Your task to perform on an android device: uninstall "Spotify" Image 0: 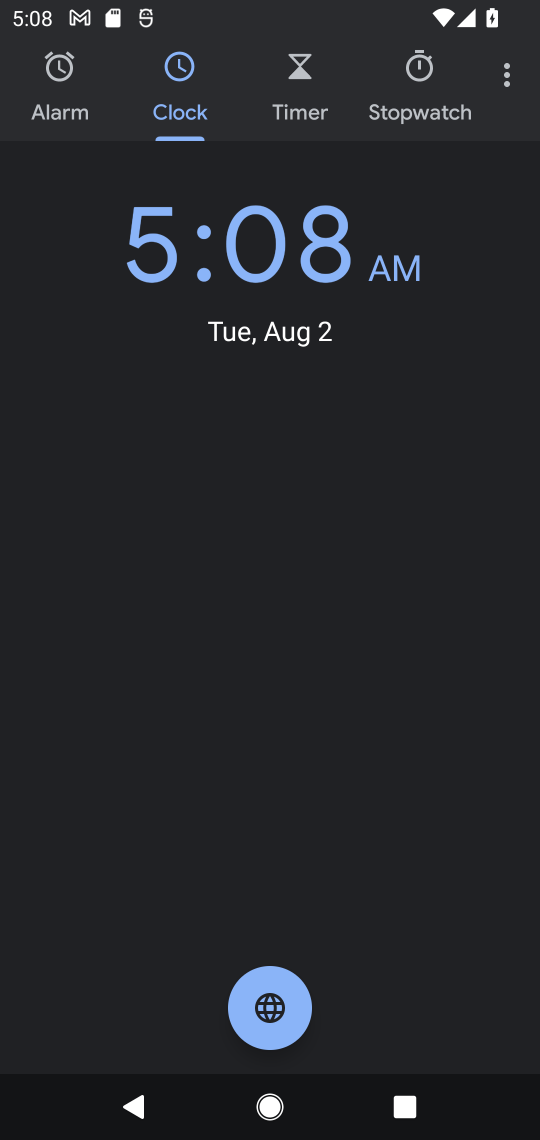
Step 0: press home button
Your task to perform on an android device: uninstall "Spotify" Image 1: 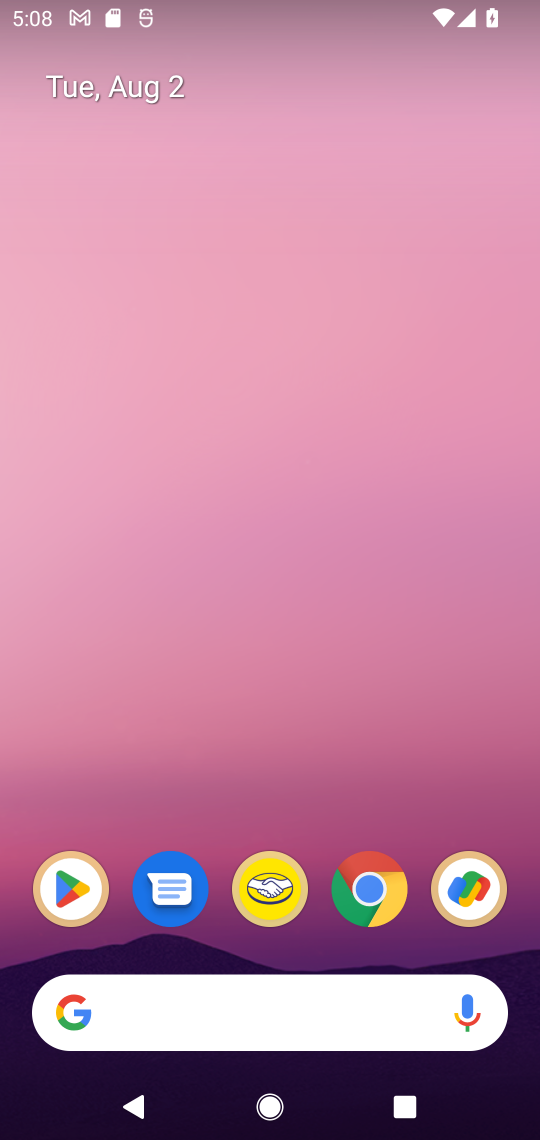
Step 1: drag from (428, 791) to (394, 75)
Your task to perform on an android device: uninstall "Spotify" Image 2: 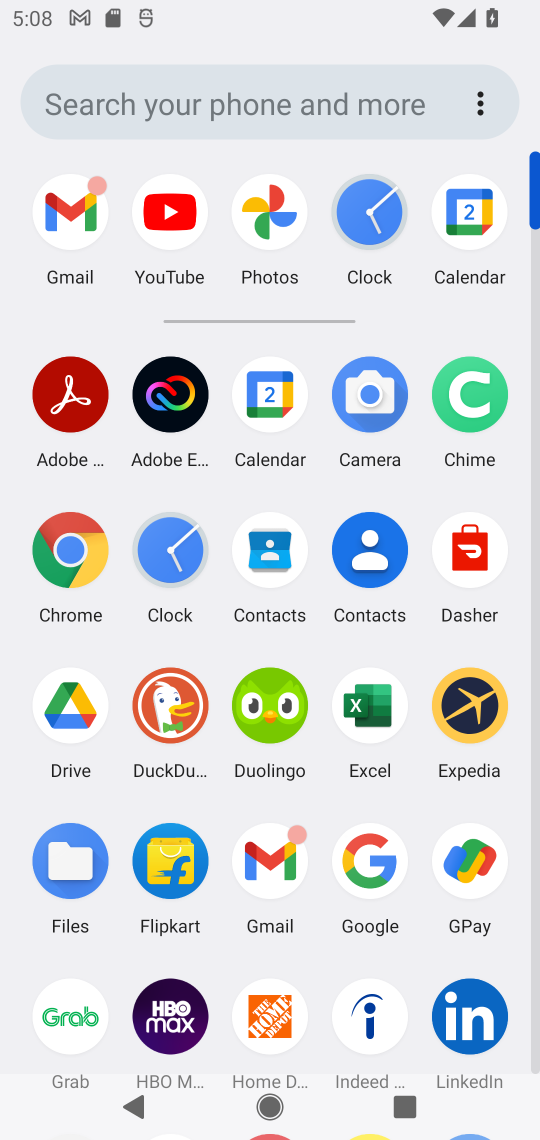
Step 2: drag from (518, 913) to (505, 522)
Your task to perform on an android device: uninstall "Spotify" Image 3: 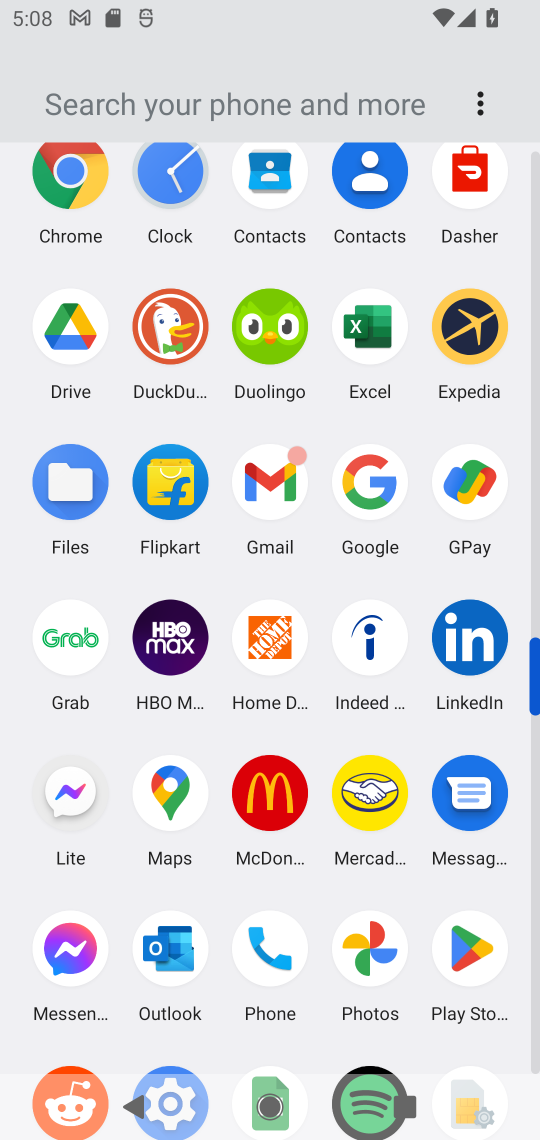
Step 3: drag from (509, 1039) to (489, 568)
Your task to perform on an android device: uninstall "Spotify" Image 4: 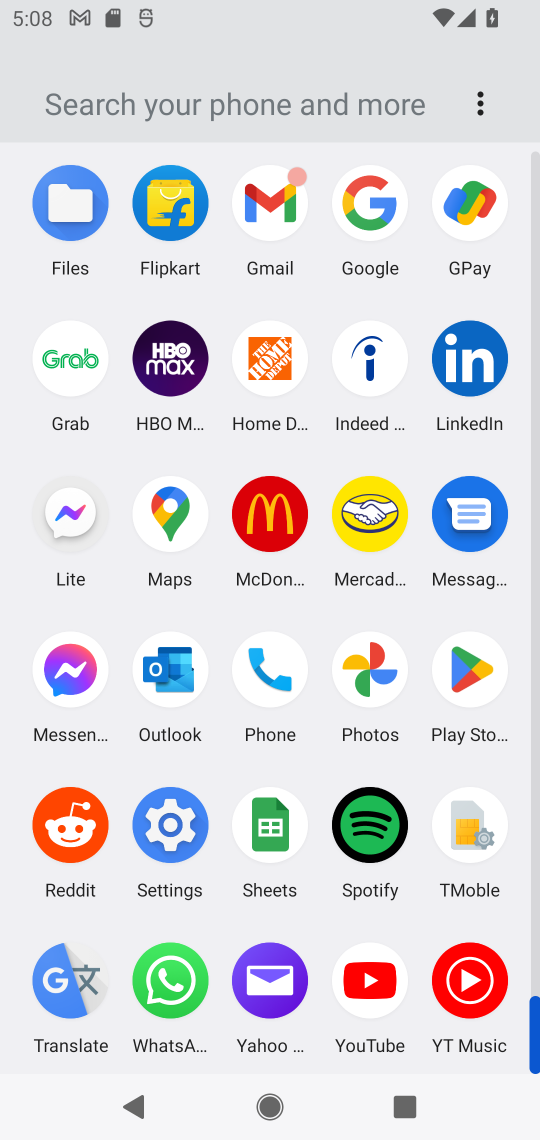
Step 4: click (470, 678)
Your task to perform on an android device: uninstall "Spotify" Image 5: 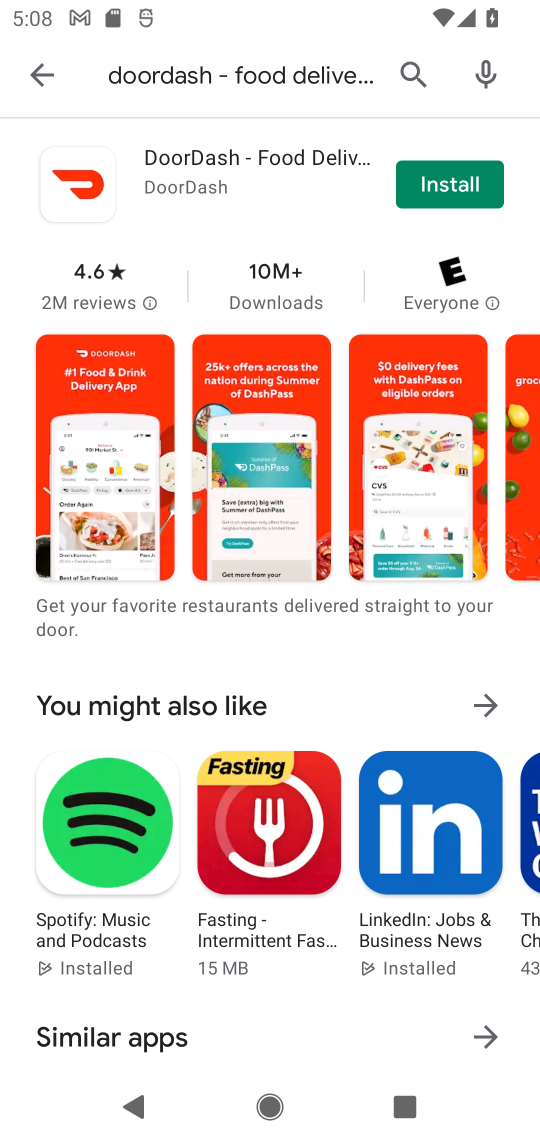
Step 5: click (413, 86)
Your task to perform on an android device: uninstall "Spotify" Image 6: 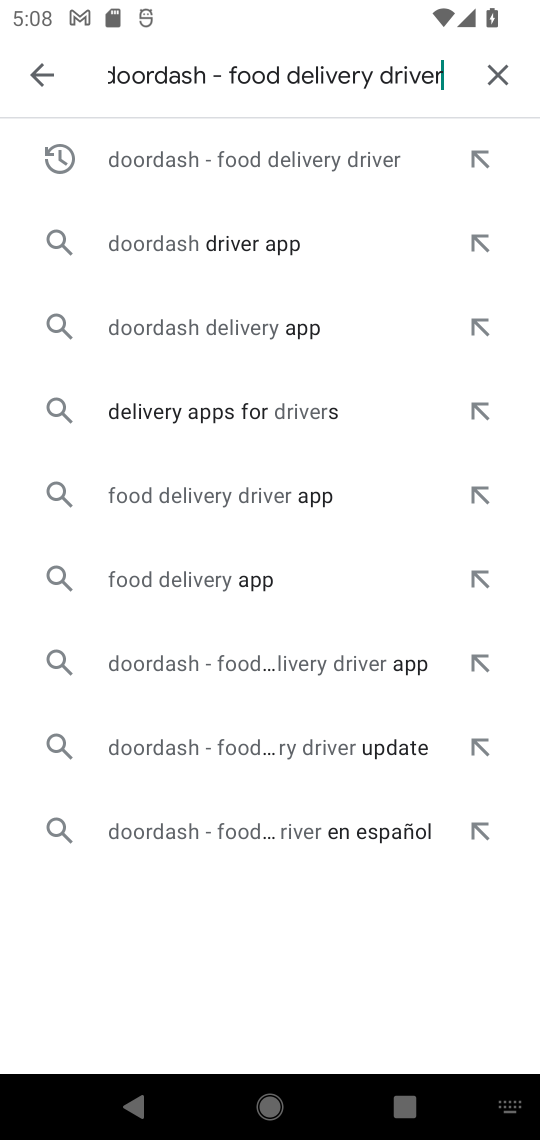
Step 6: click (496, 76)
Your task to perform on an android device: uninstall "Spotify" Image 7: 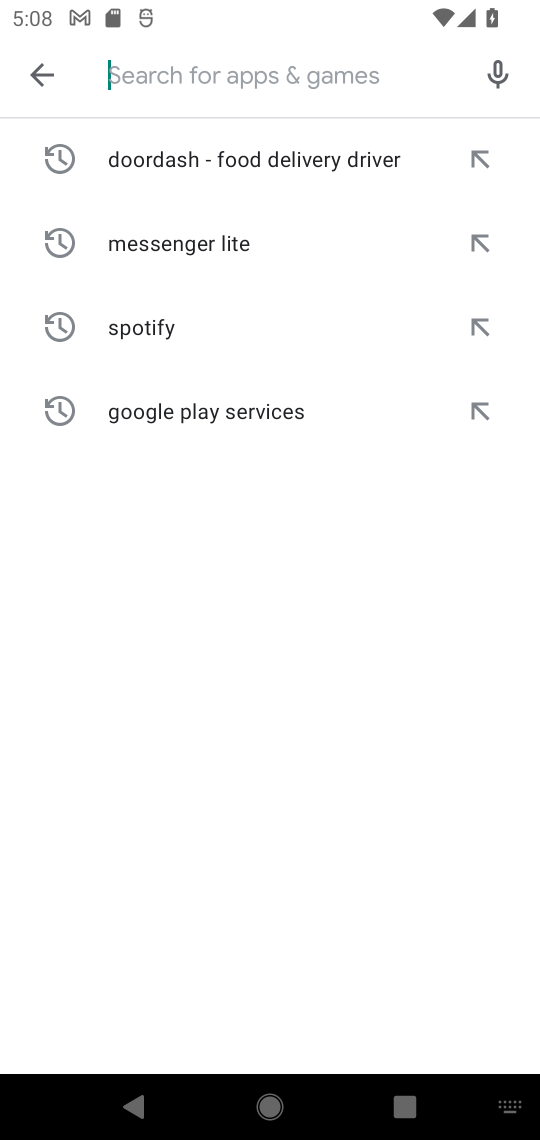
Step 7: click (361, 87)
Your task to perform on an android device: uninstall "Spotify" Image 8: 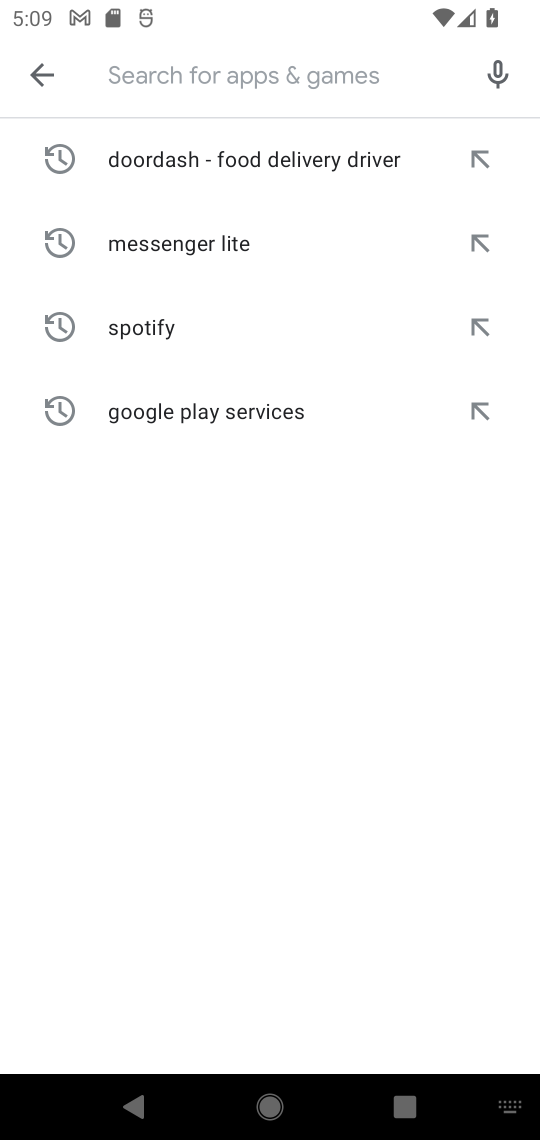
Step 8: type "spotifty"
Your task to perform on an android device: uninstall "Spotify" Image 9: 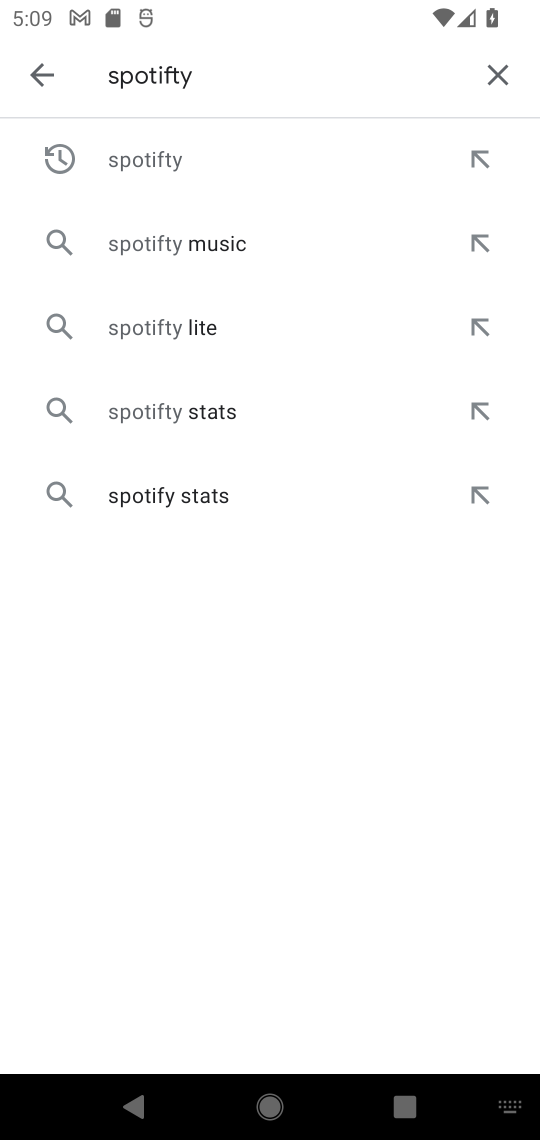
Step 9: click (204, 161)
Your task to perform on an android device: uninstall "Spotify" Image 10: 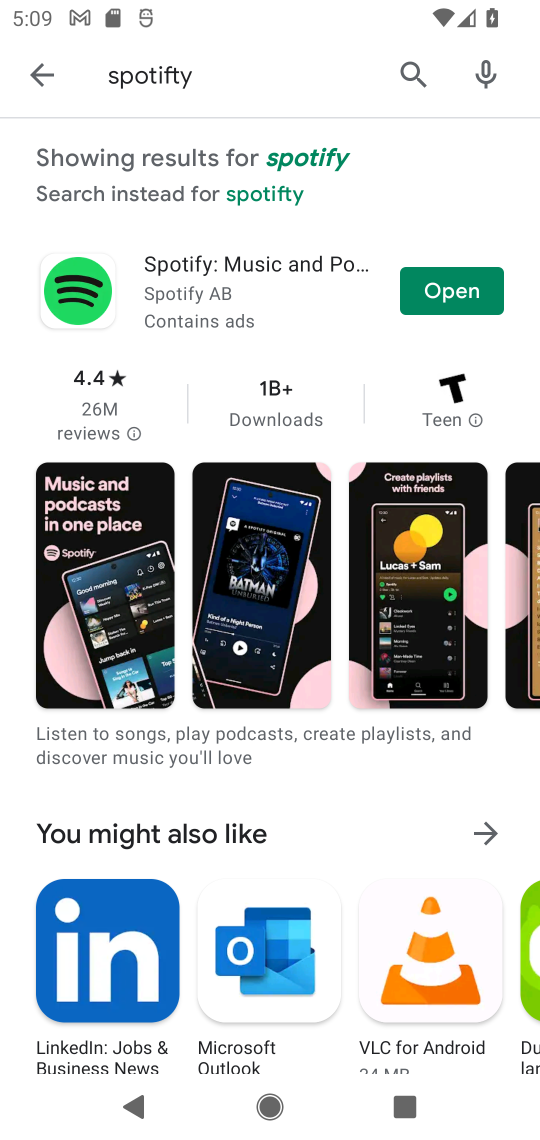
Step 10: task complete